Your task to perform on an android device: turn on sleep mode Image 0: 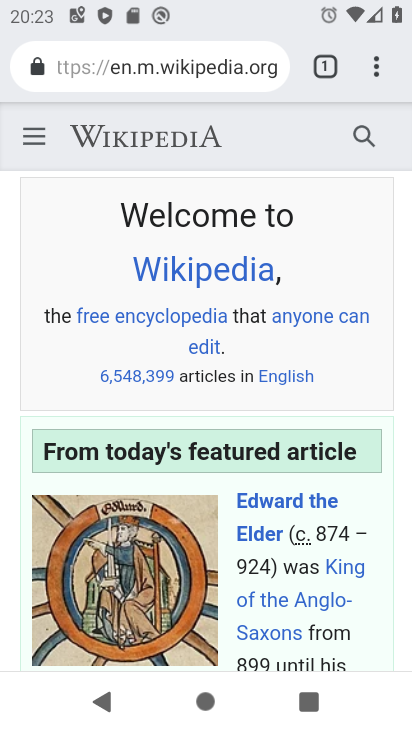
Step 0: press home button
Your task to perform on an android device: turn on sleep mode Image 1: 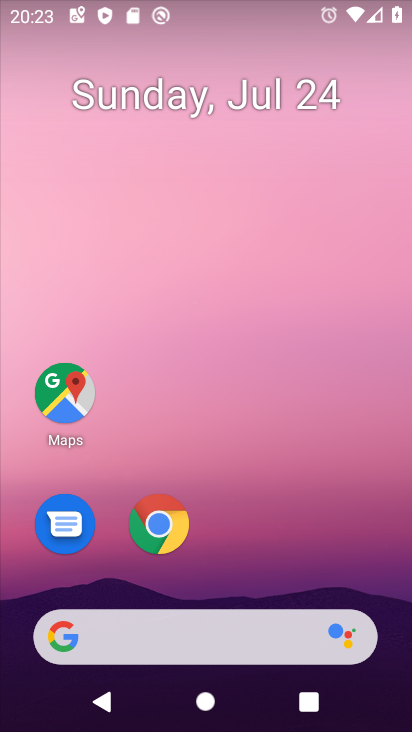
Step 1: drag from (258, 524) to (267, 0)
Your task to perform on an android device: turn on sleep mode Image 2: 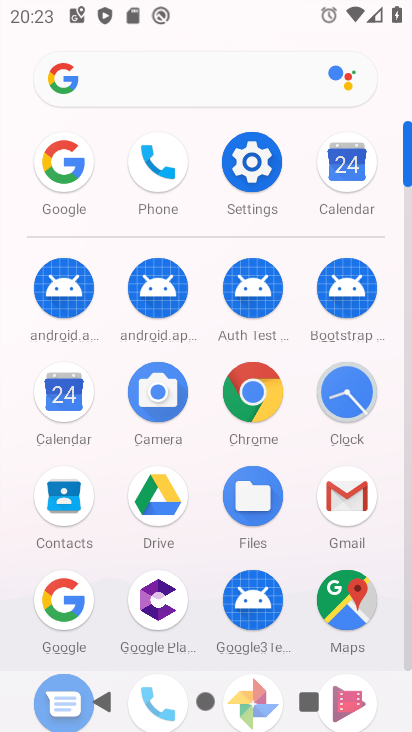
Step 2: click (250, 166)
Your task to perform on an android device: turn on sleep mode Image 3: 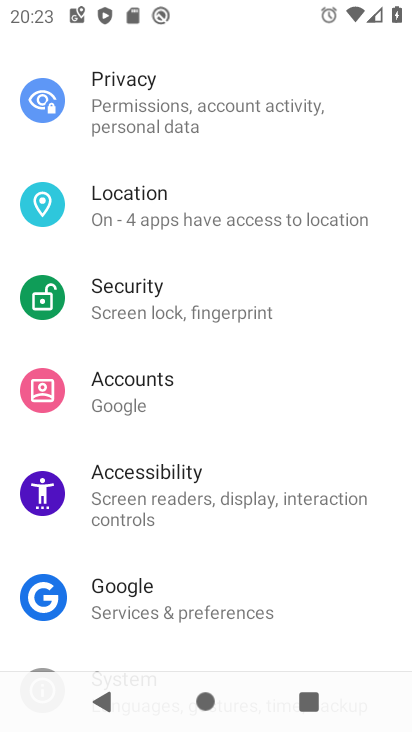
Step 3: drag from (246, 184) to (234, 630)
Your task to perform on an android device: turn on sleep mode Image 4: 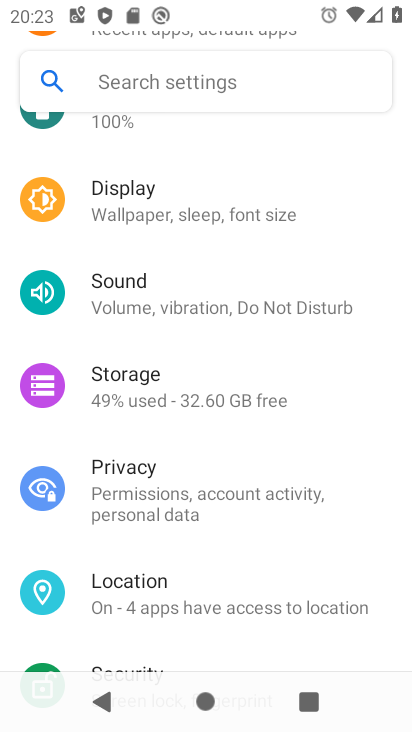
Step 4: click (179, 197)
Your task to perform on an android device: turn on sleep mode Image 5: 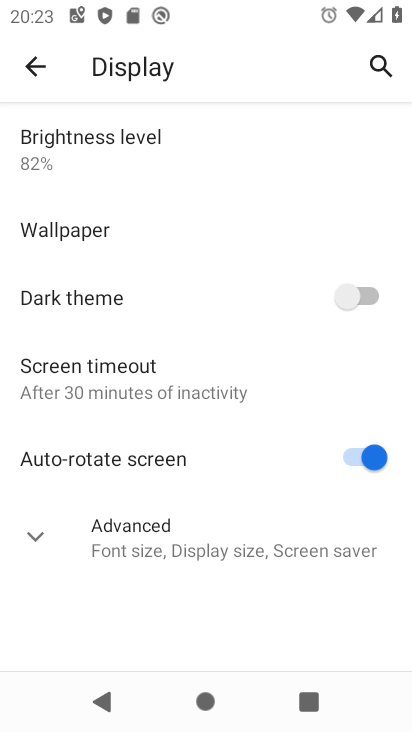
Step 5: click (35, 531)
Your task to perform on an android device: turn on sleep mode Image 6: 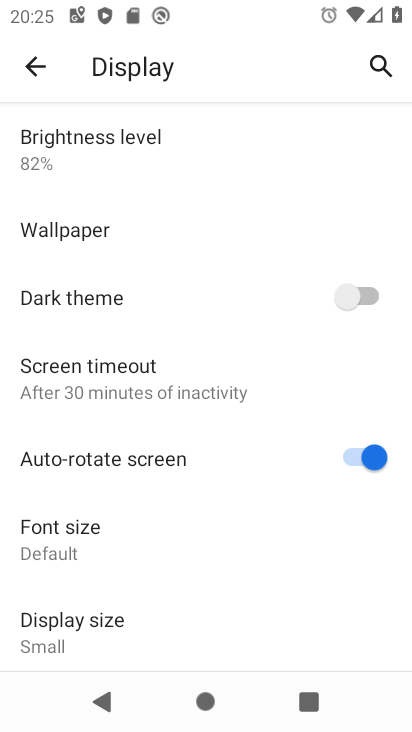
Step 6: task complete